Your task to perform on an android device: find photos in the google photos app Image 0: 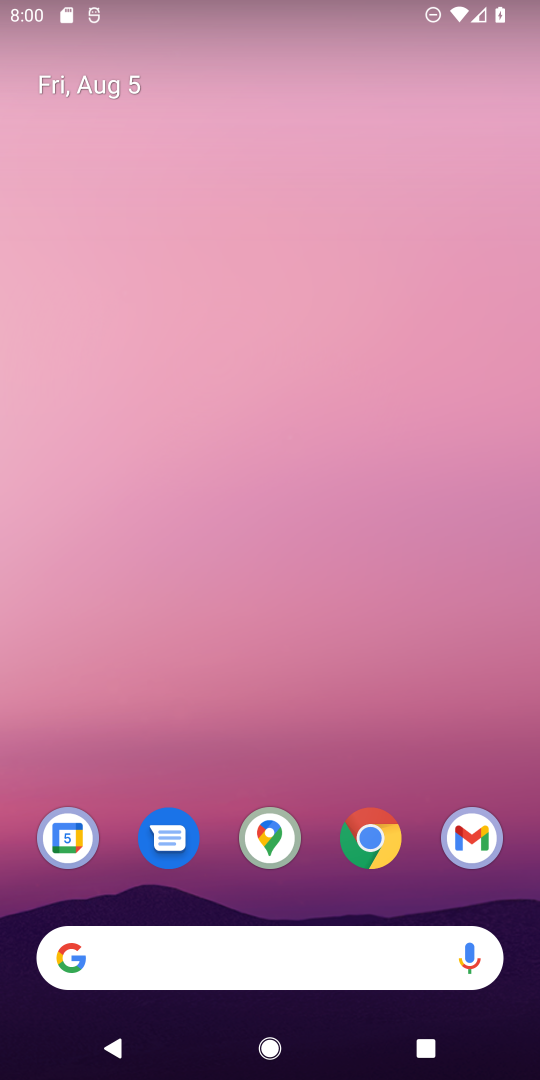
Step 0: drag from (293, 808) to (300, 394)
Your task to perform on an android device: find photos in the google photos app Image 1: 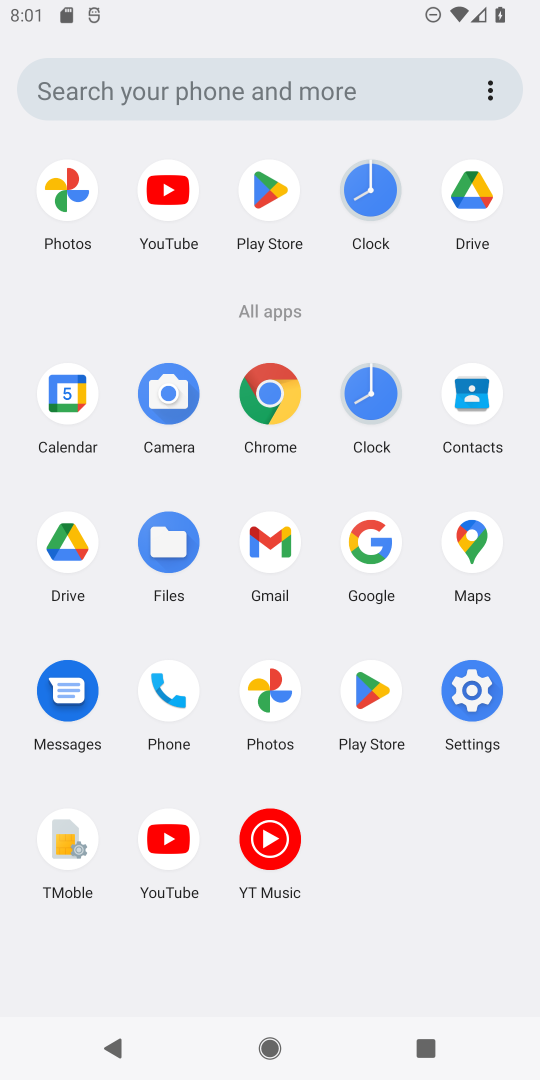
Step 1: click (240, 792)
Your task to perform on an android device: find photos in the google photos app Image 2: 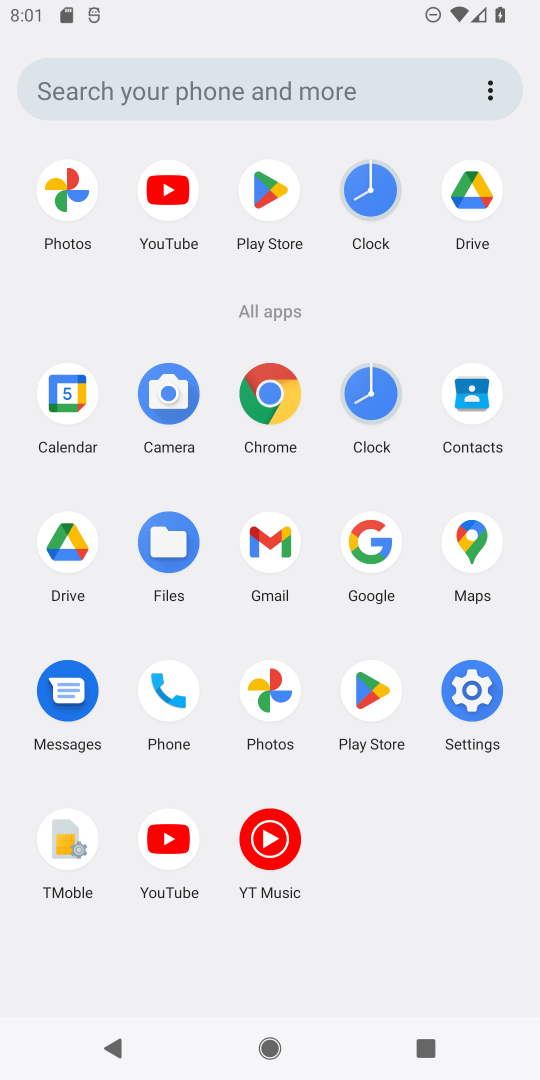
Step 2: click (275, 675)
Your task to perform on an android device: find photos in the google photos app Image 3: 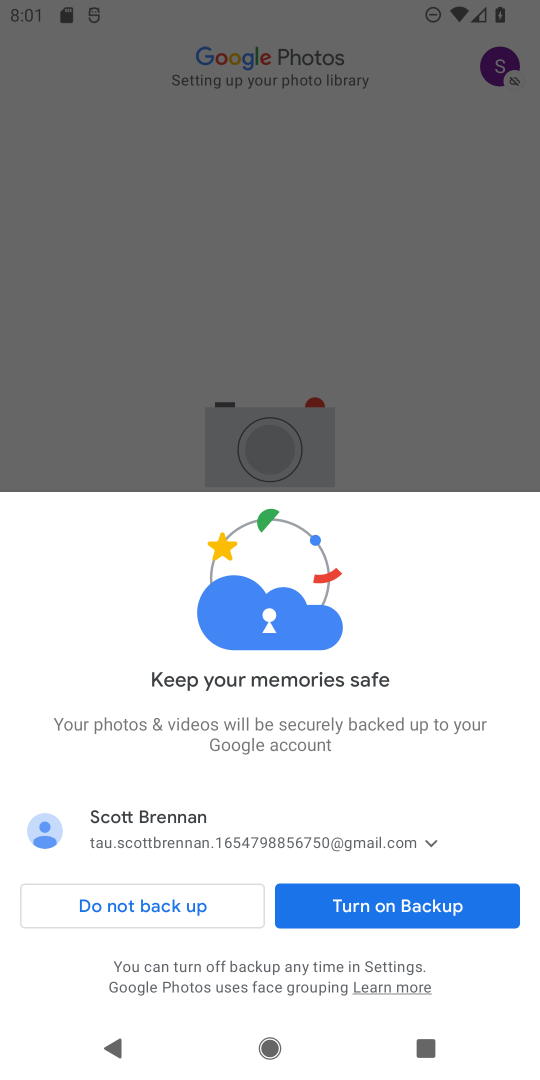
Step 3: click (417, 895)
Your task to perform on an android device: find photos in the google photos app Image 4: 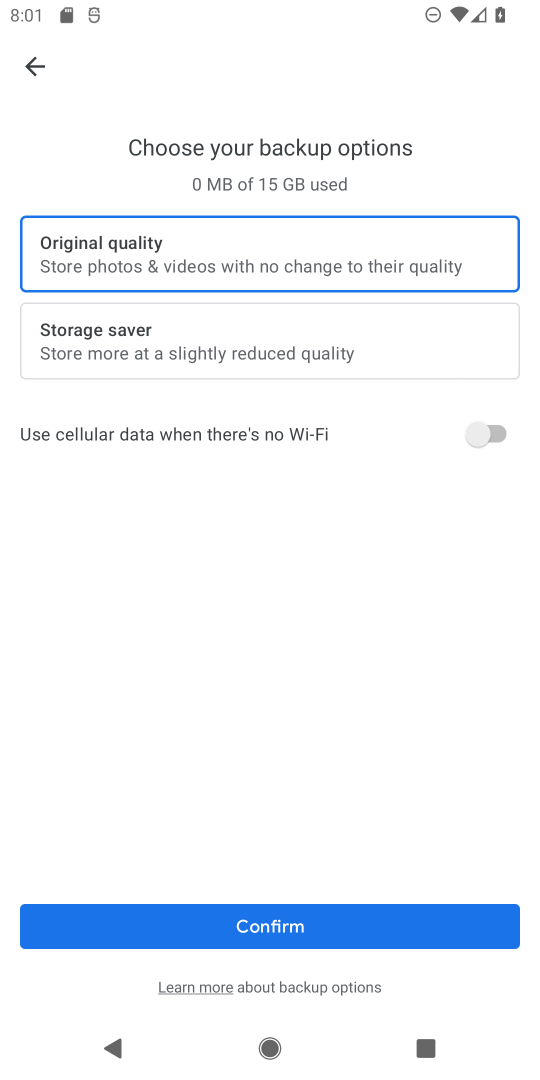
Step 4: drag from (369, 905) to (291, 905)
Your task to perform on an android device: find photos in the google photos app Image 5: 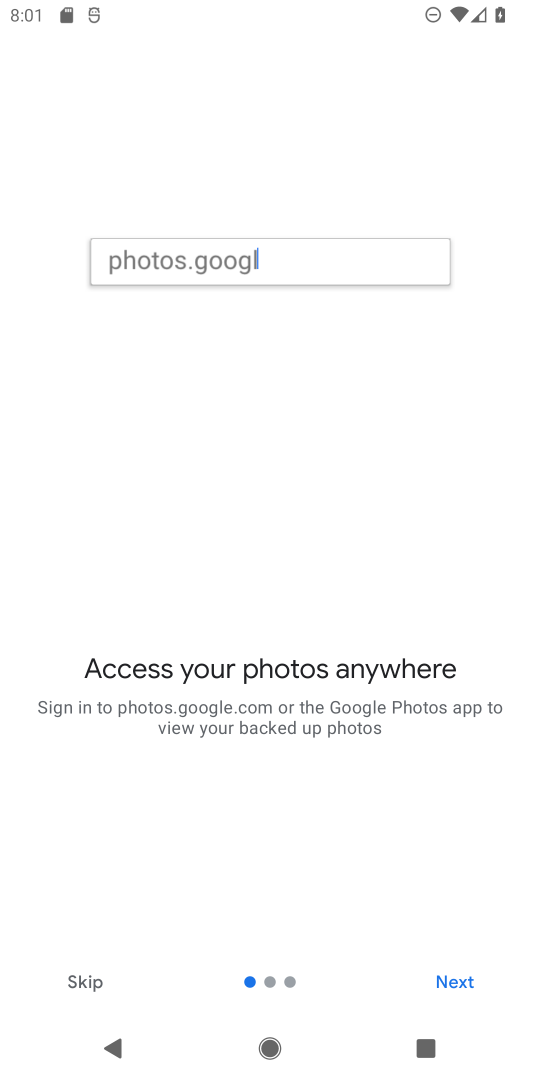
Step 5: click (451, 991)
Your task to perform on an android device: find photos in the google photos app Image 6: 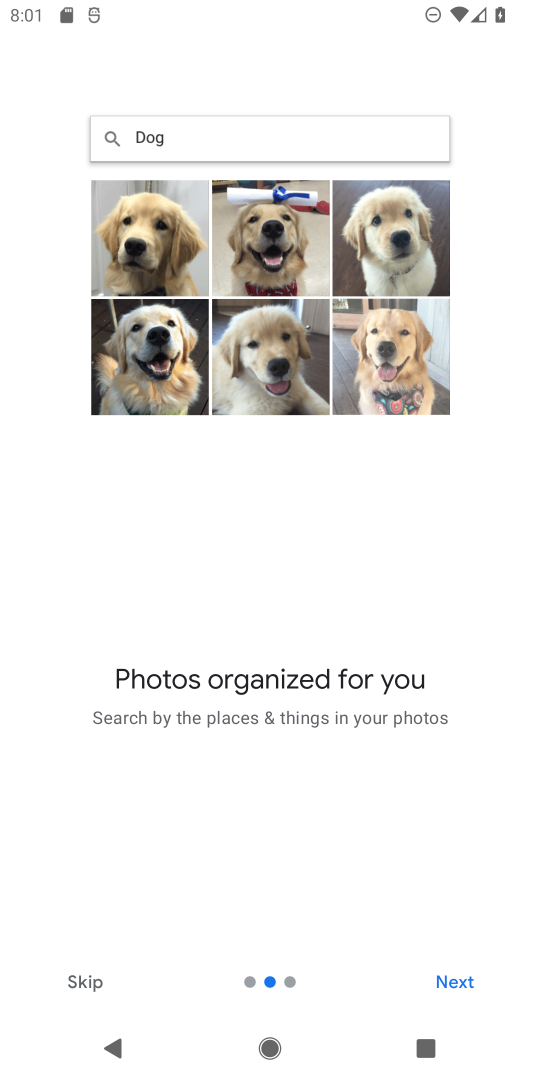
Step 6: click (460, 980)
Your task to perform on an android device: find photos in the google photos app Image 7: 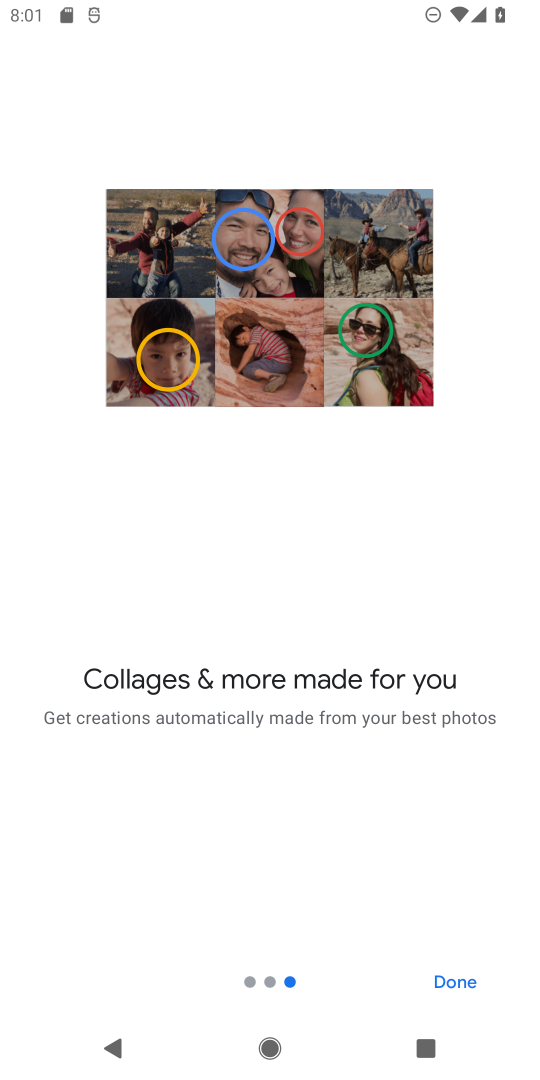
Step 7: click (459, 983)
Your task to perform on an android device: find photos in the google photos app Image 8: 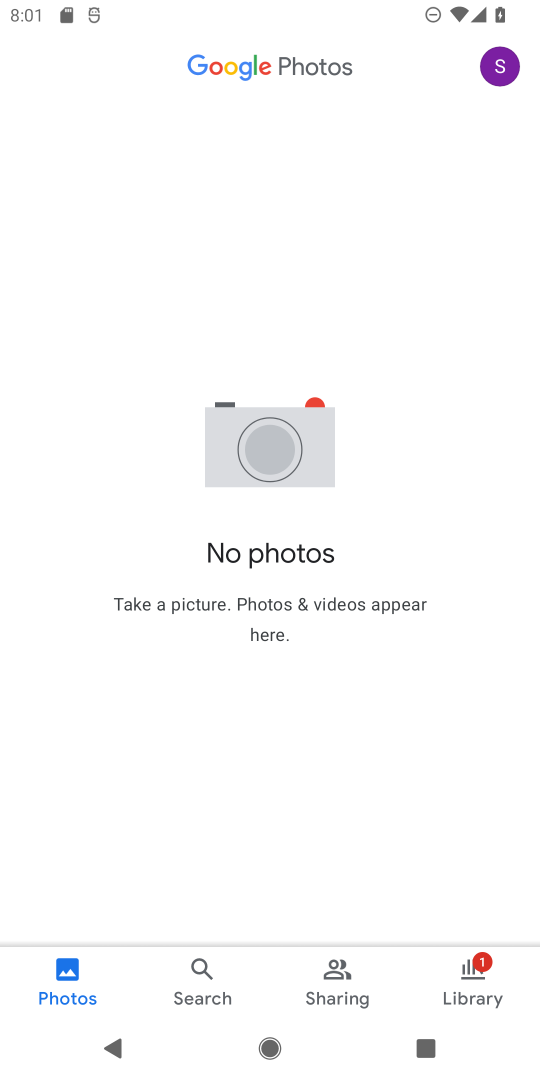
Step 8: task complete